Your task to perform on an android device: set default search engine in the chrome app Image 0: 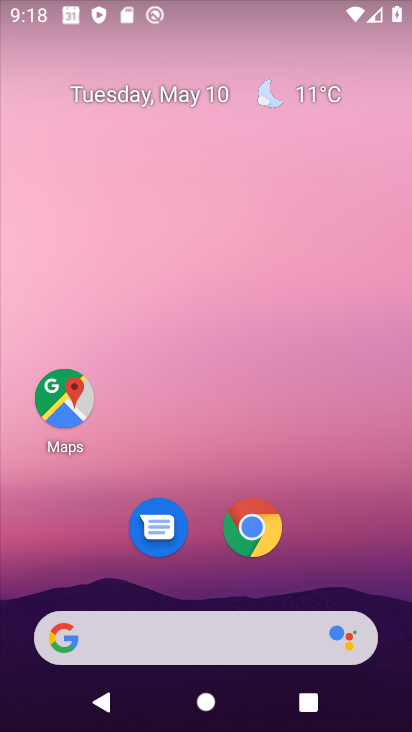
Step 0: drag from (355, 499) to (313, 231)
Your task to perform on an android device: set default search engine in the chrome app Image 1: 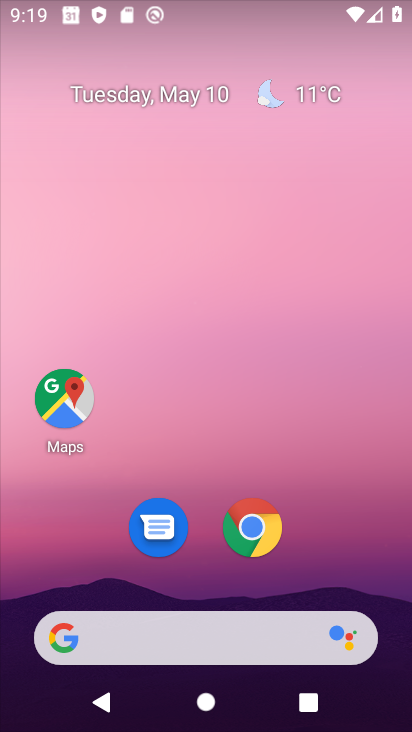
Step 1: click (259, 517)
Your task to perform on an android device: set default search engine in the chrome app Image 2: 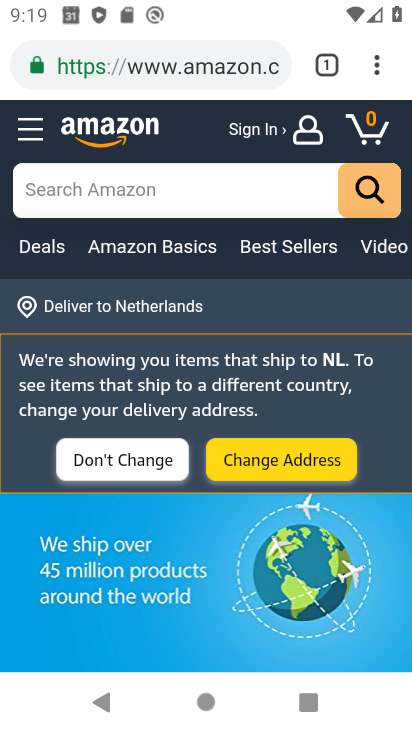
Step 2: click (375, 59)
Your task to perform on an android device: set default search engine in the chrome app Image 3: 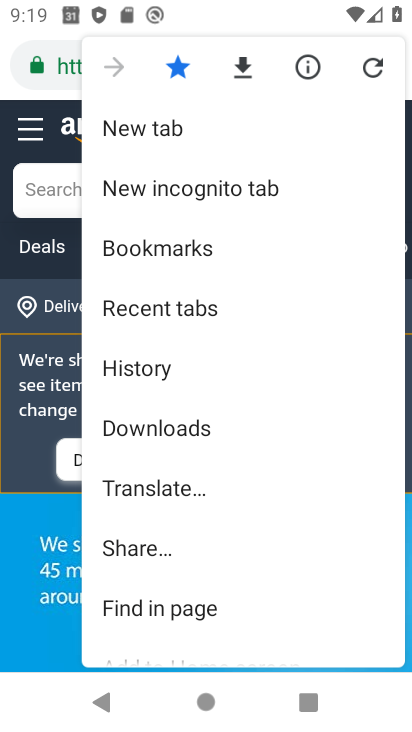
Step 3: drag from (286, 544) to (216, 254)
Your task to perform on an android device: set default search engine in the chrome app Image 4: 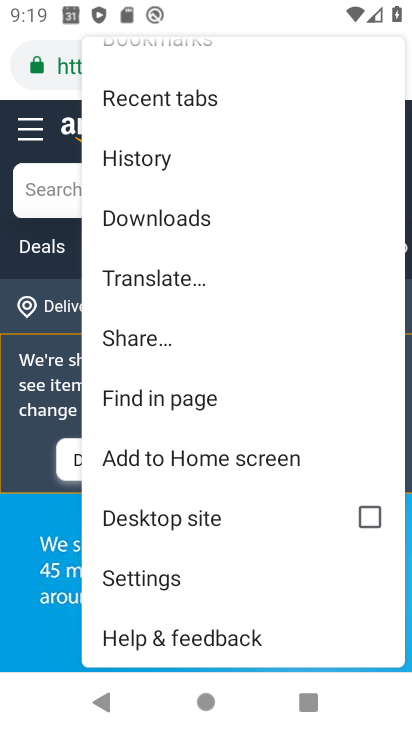
Step 4: click (186, 567)
Your task to perform on an android device: set default search engine in the chrome app Image 5: 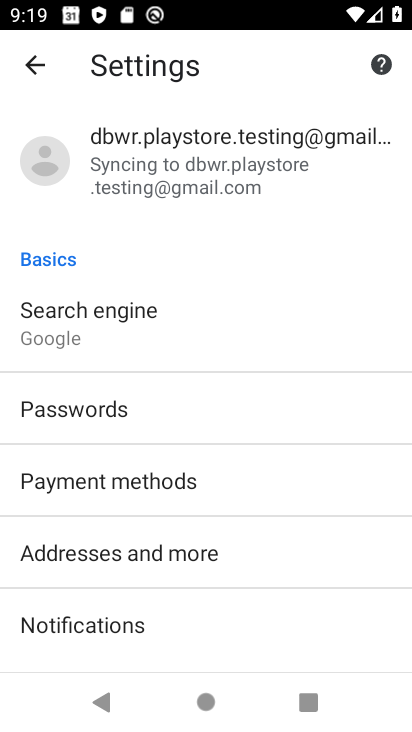
Step 5: click (165, 333)
Your task to perform on an android device: set default search engine in the chrome app Image 6: 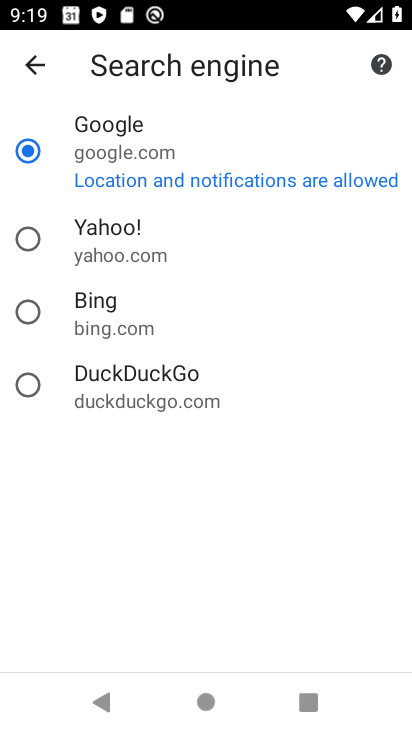
Step 6: click (146, 324)
Your task to perform on an android device: set default search engine in the chrome app Image 7: 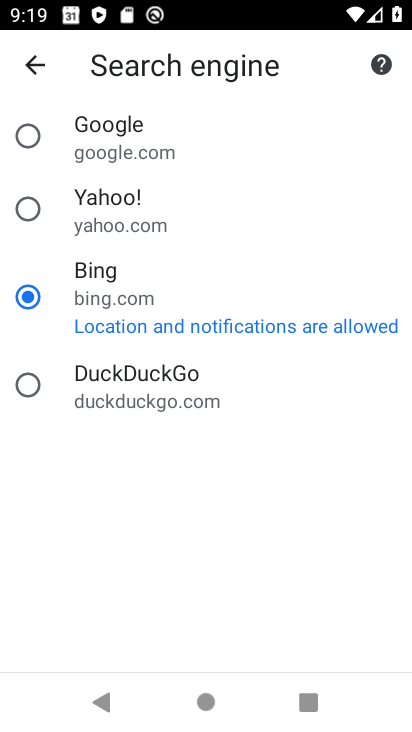
Step 7: task complete